Your task to perform on an android device: turn on notifications settings in the gmail app Image 0: 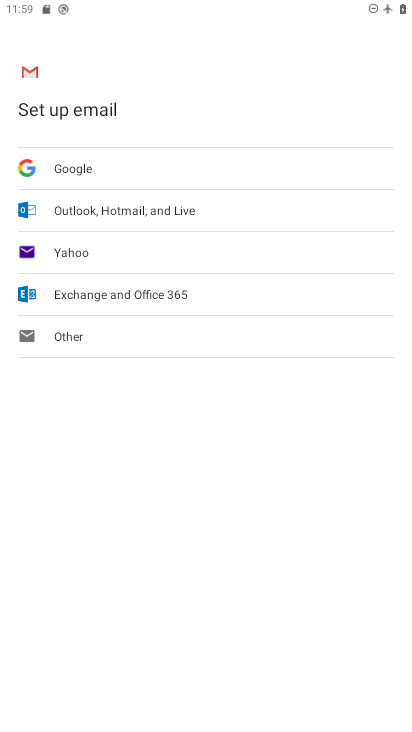
Step 0: press home button
Your task to perform on an android device: turn on notifications settings in the gmail app Image 1: 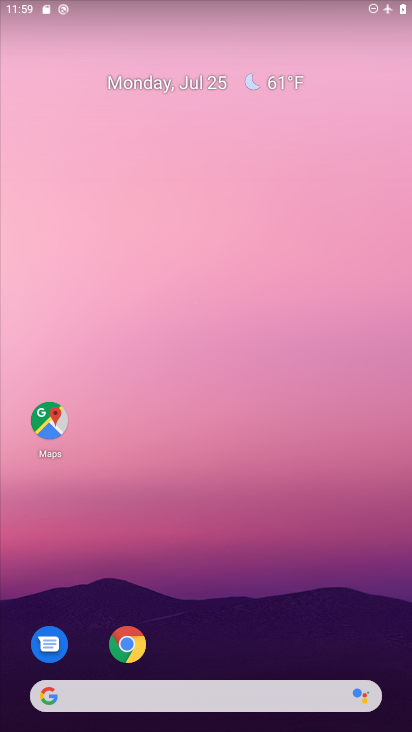
Step 1: drag from (202, 555) to (135, 93)
Your task to perform on an android device: turn on notifications settings in the gmail app Image 2: 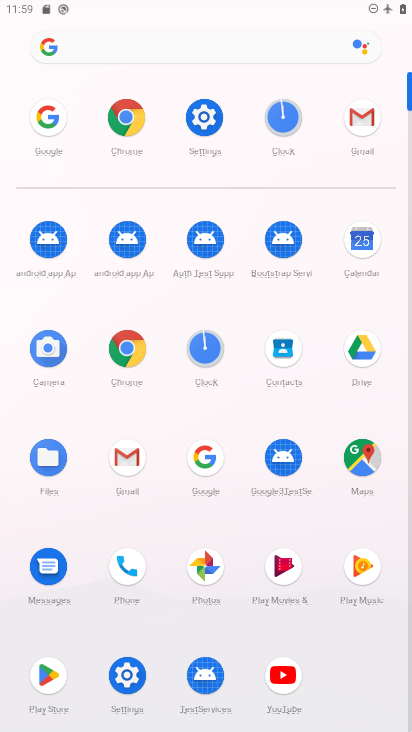
Step 2: click (118, 456)
Your task to perform on an android device: turn on notifications settings in the gmail app Image 3: 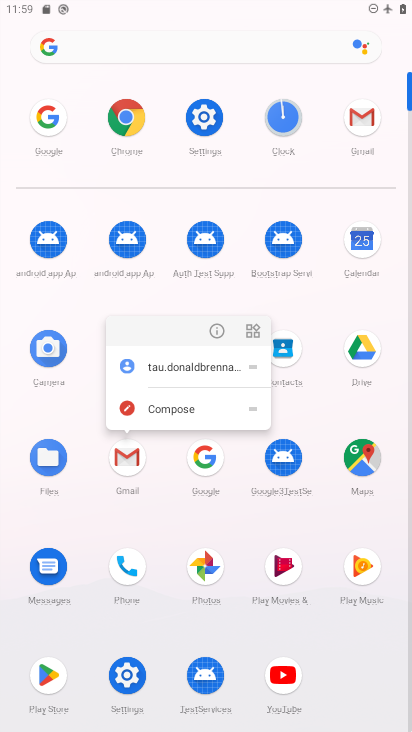
Step 3: click (122, 455)
Your task to perform on an android device: turn on notifications settings in the gmail app Image 4: 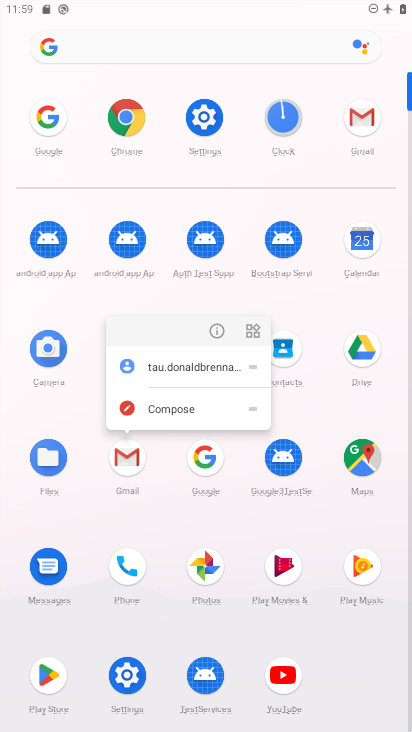
Step 4: click (122, 468)
Your task to perform on an android device: turn on notifications settings in the gmail app Image 5: 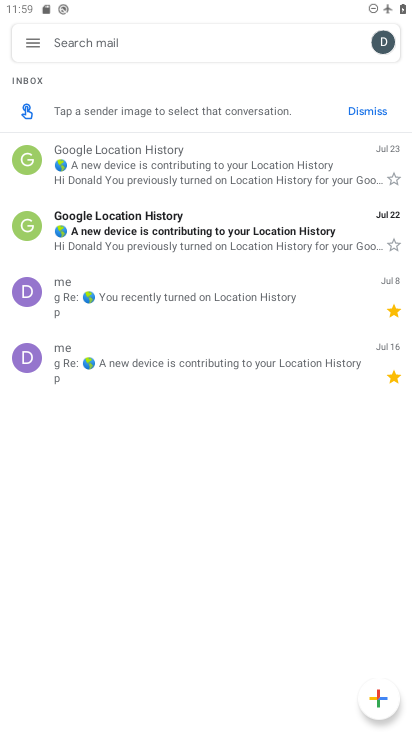
Step 5: click (34, 38)
Your task to perform on an android device: turn on notifications settings in the gmail app Image 6: 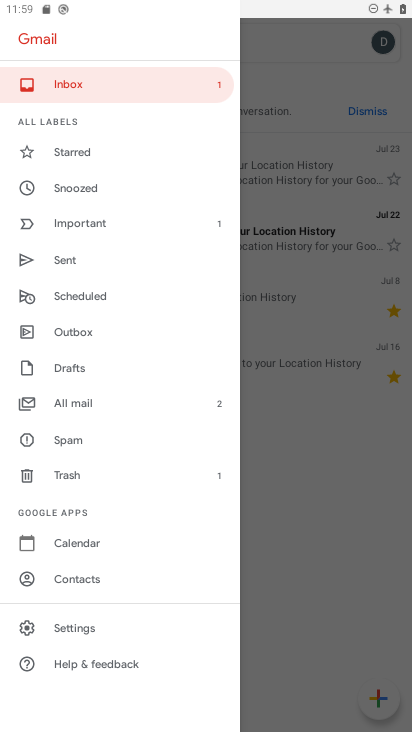
Step 6: click (77, 620)
Your task to perform on an android device: turn on notifications settings in the gmail app Image 7: 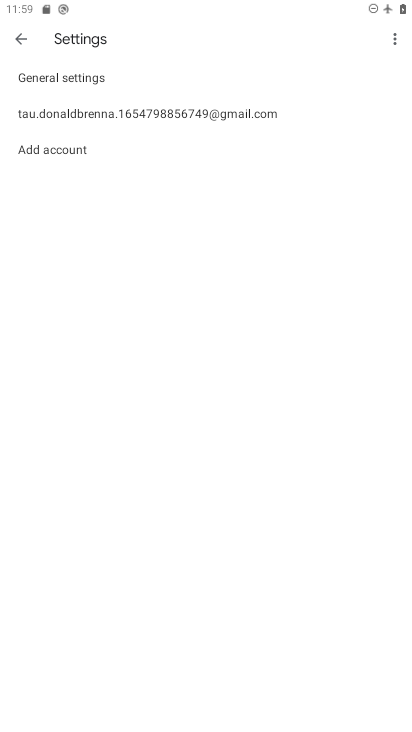
Step 7: click (92, 106)
Your task to perform on an android device: turn on notifications settings in the gmail app Image 8: 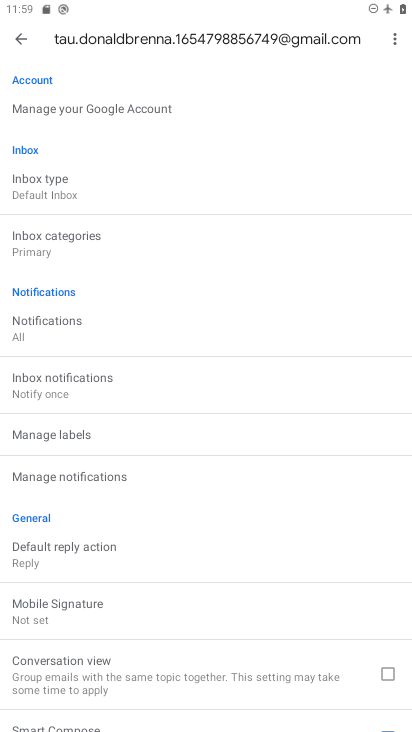
Step 8: click (98, 345)
Your task to perform on an android device: turn on notifications settings in the gmail app Image 9: 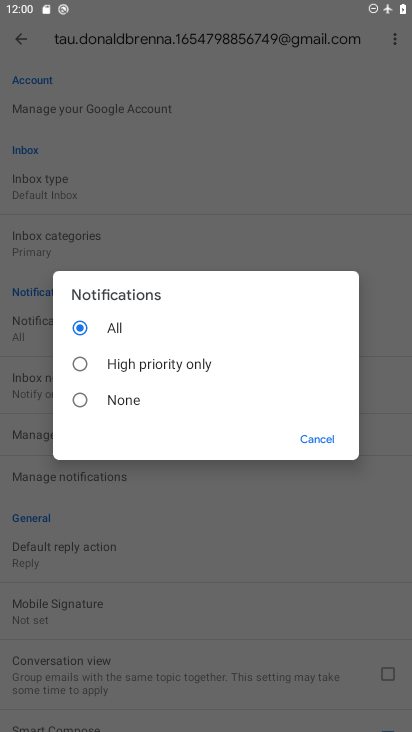
Step 9: task complete